Your task to perform on an android device: Open wifi settings Image 0: 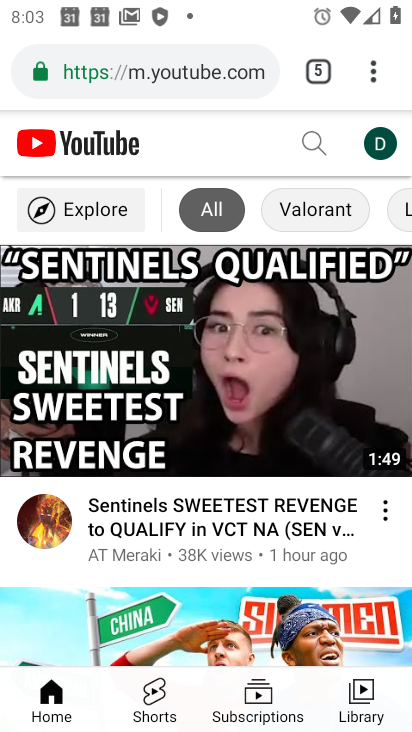
Step 0: press home button
Your task to perform on an android device: Open wifi settings Image 1: 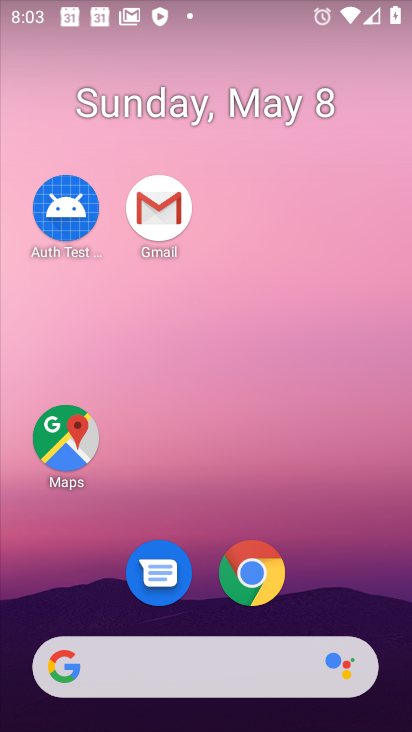
Step 1: drag from (362, 557) to (234, 131)
Your task to perform on an android device: Open wifi settings Image 2: 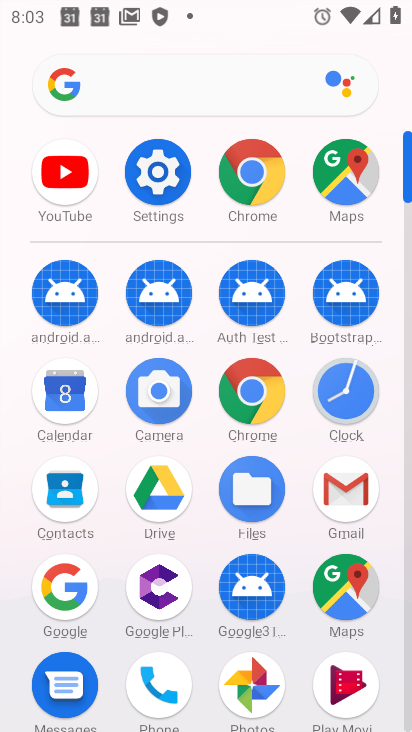
Step 2: click (138, 180)
Your task to perform on an android device: Open wifi settings Image 3: 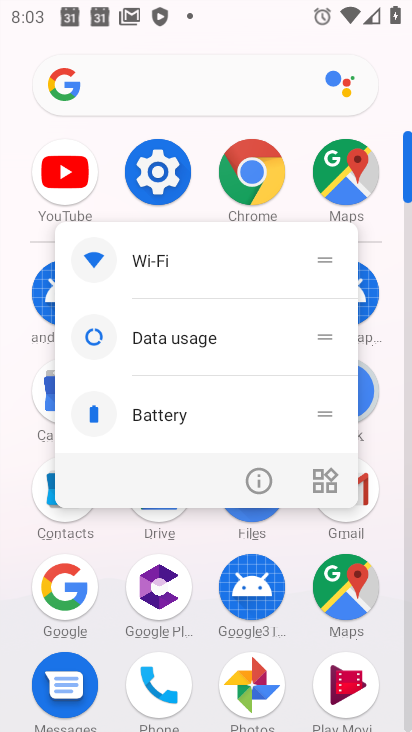
Step 3: click (186, 264)
Your task to perform on an android device: Open wifi settings Image 4: 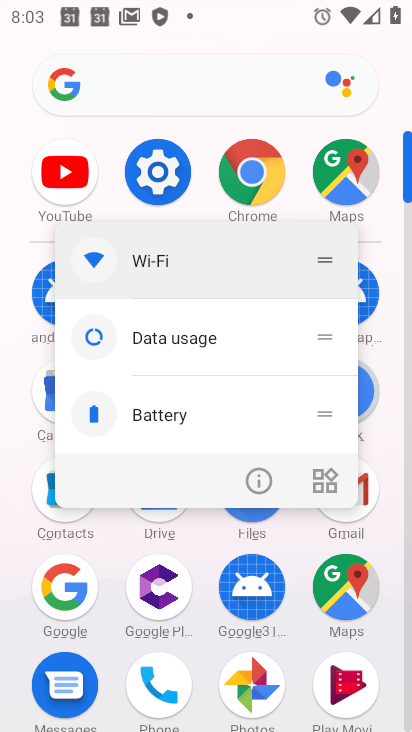
Step 4: click (186, 264)
Your task to perform on an android device: Open wifi settings Image 5: 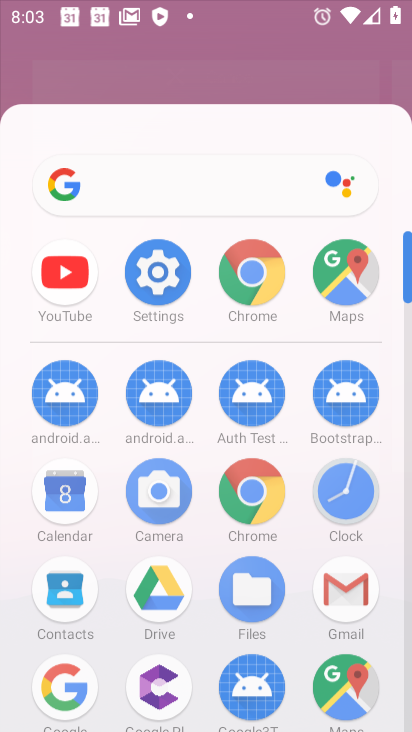
Step 5: click (186, 264)
Your task to perform on an android device: Open wifi settings Image 6: 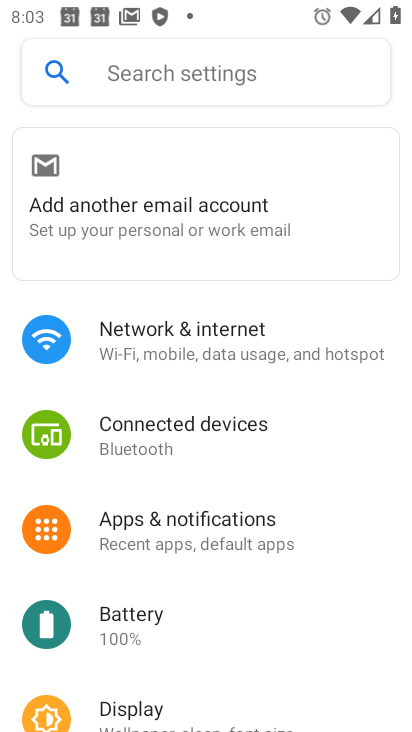
Step 6: click (216, 327)
Your task to perform on an android device: Open wifi settings Image 7: 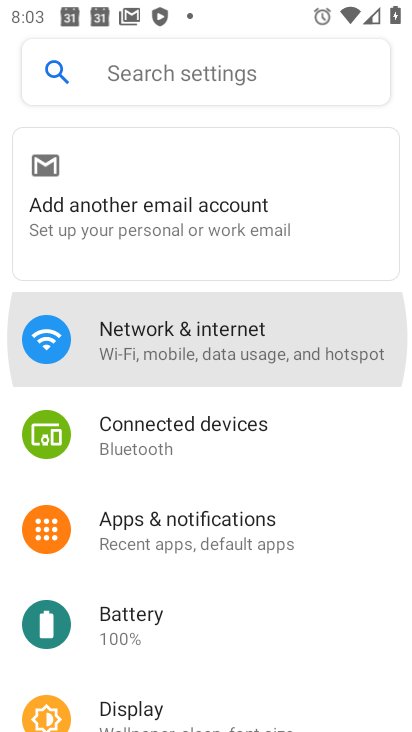
Step 7: click (216, 328)
Your task to perform on an android device: Open wifi settings Image 8: 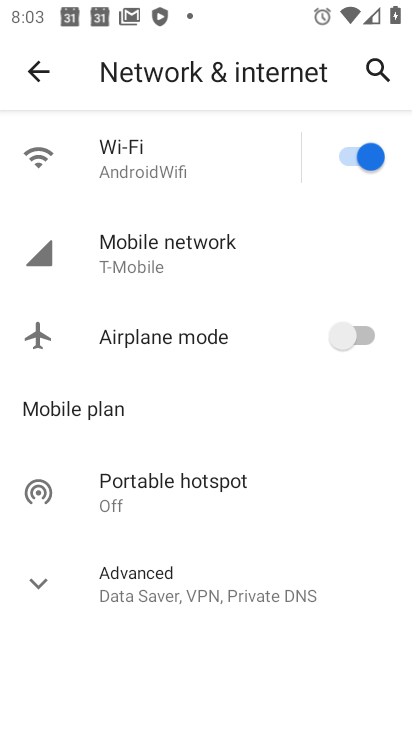
Step 8: task complete